Your task to perform on an android device: View the shopping cart on bestbuy.com. Add macbook pro 15 inch to the cart on bestbuy.com Image 0: 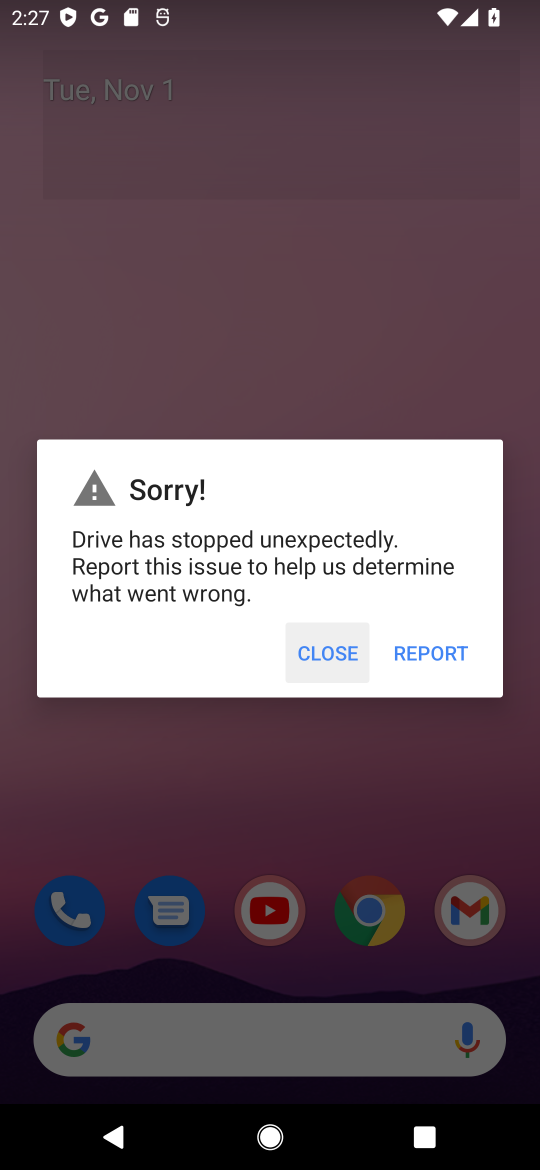
Step 0: press home button
Your task to perform on an android device: View the shopping cart on bestbuy.com. Add macbook pro 15 inch to the cart on bestbuy.com Image 1: 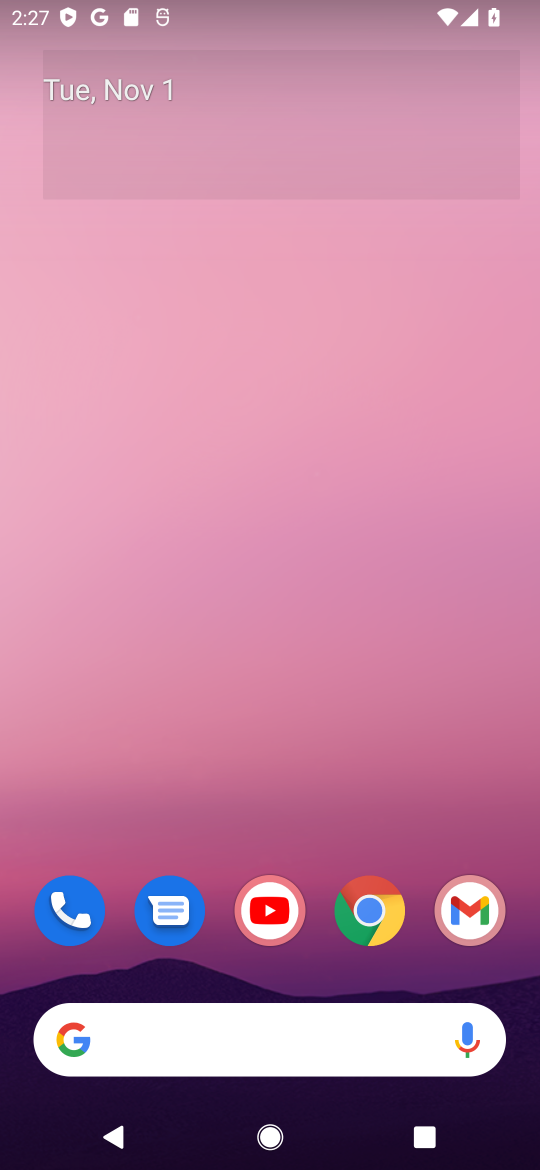
Step 1: click (305, 1043)
Your task to perform on an android device: View the shopping cart on bestbuy.com. Add macbook pro 15 inch to the cart on bestbuy.com Image 2: 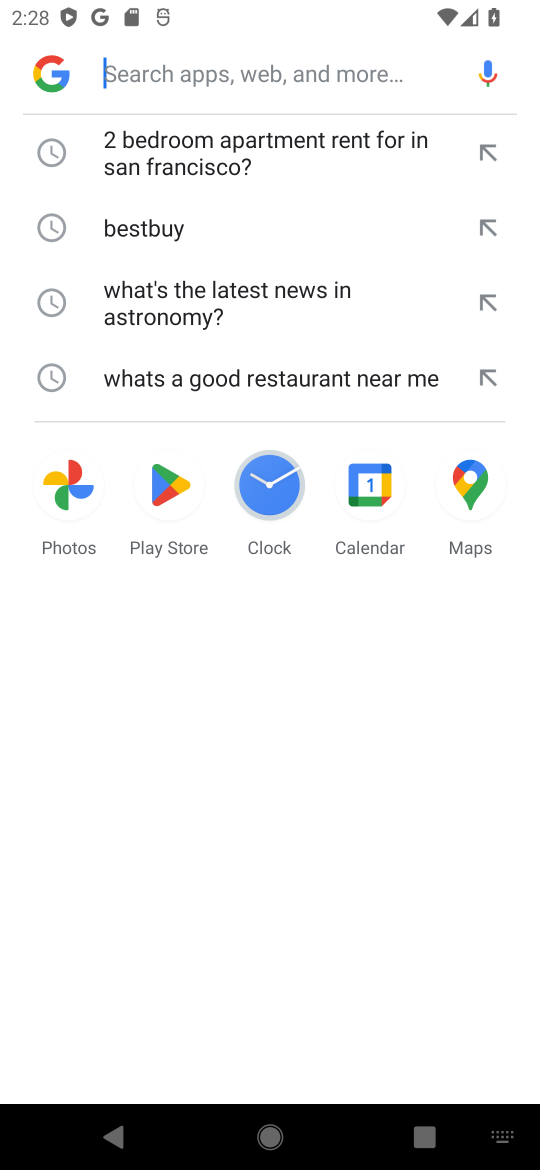
Step 2: type "bestbuy.com."
Your task to perform on an android device: View the shopping cart on bestbuy.com. Add macbook pro 15 inch to the cart on bestbuy.com Image 3: 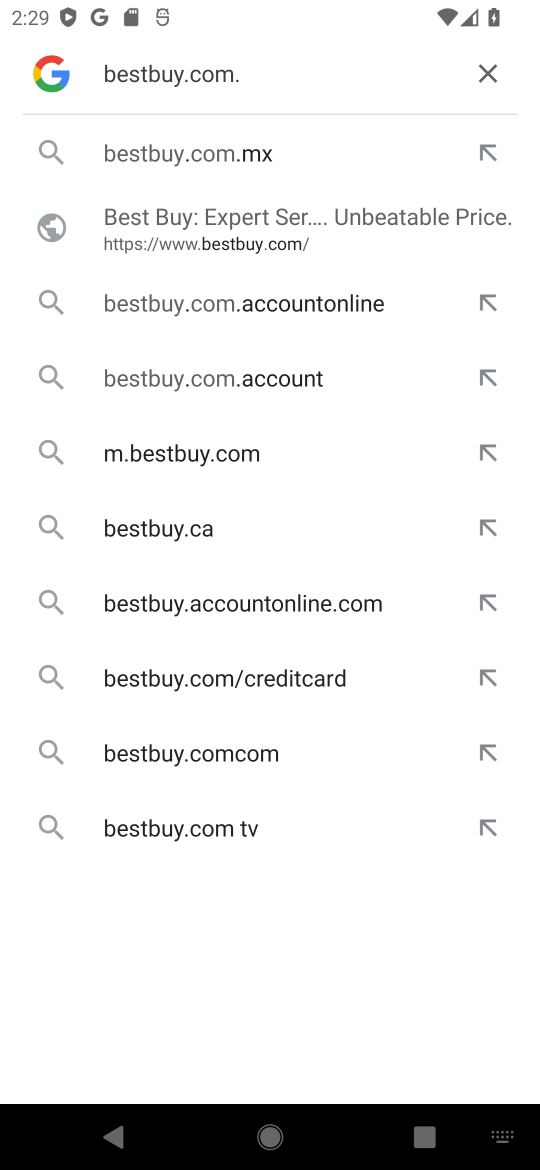
Step 3: click (220, 457)
Your task to perform on an android device: View the shopping cart on bestbuy.com. Add macbook pro 15 inch to the cart on bestbuy.com Image 4: 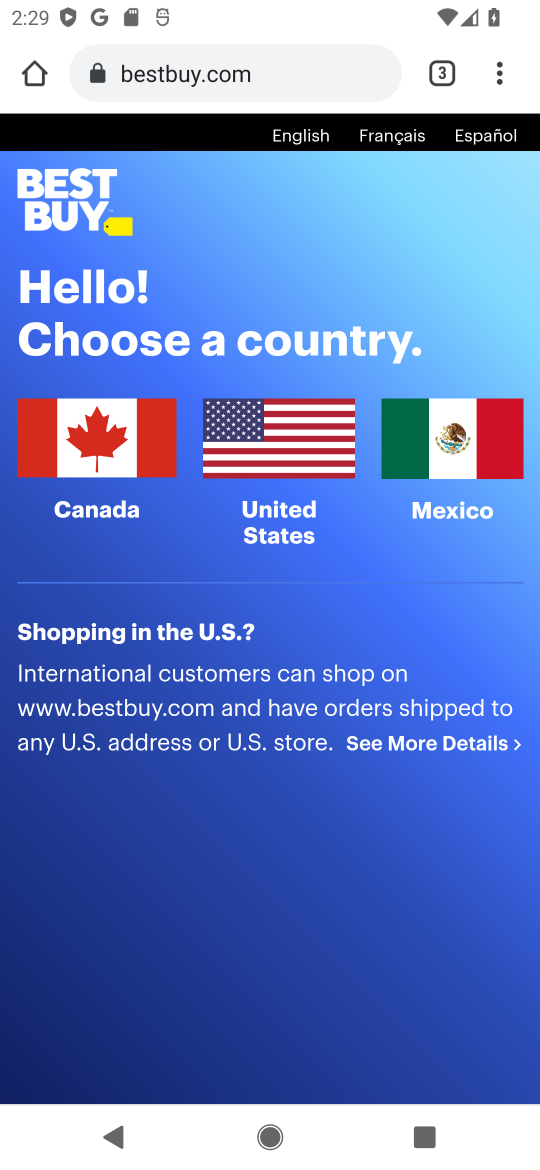
Step 4: click (251, 448)
Your task to perform on an android device: View the shopping cart on bestbuy.com. Add macbook pro 15 inch to the cart on bestbuy.com Image 5: 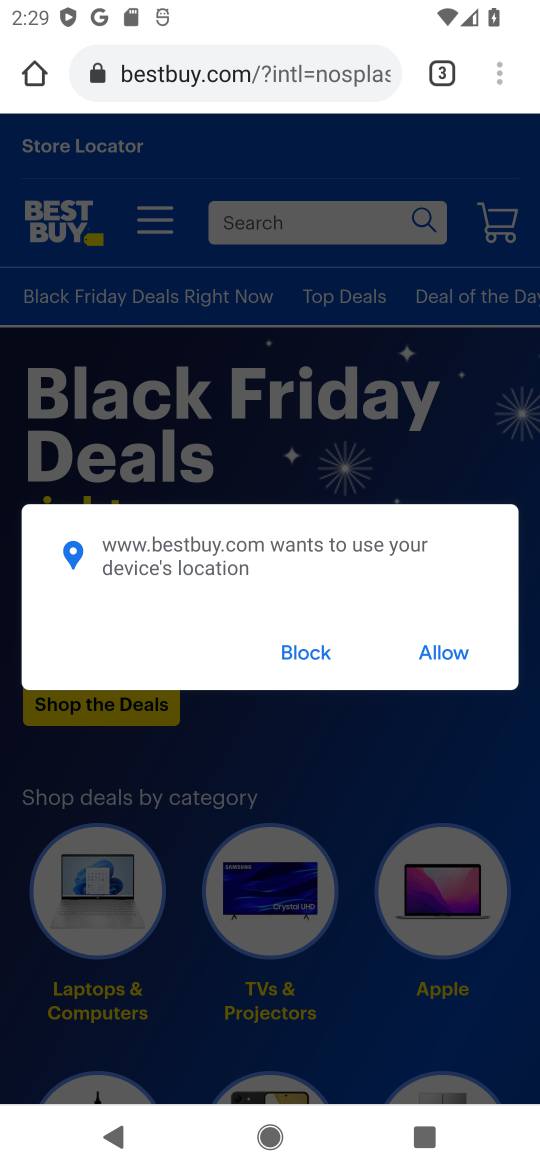
Step 5: click (339, 218)
Your task to perform on an android device: View the shopping cart on bestbuy.com. Add macbook pro 15 inch to the cart on bestbuy.com Image 6: 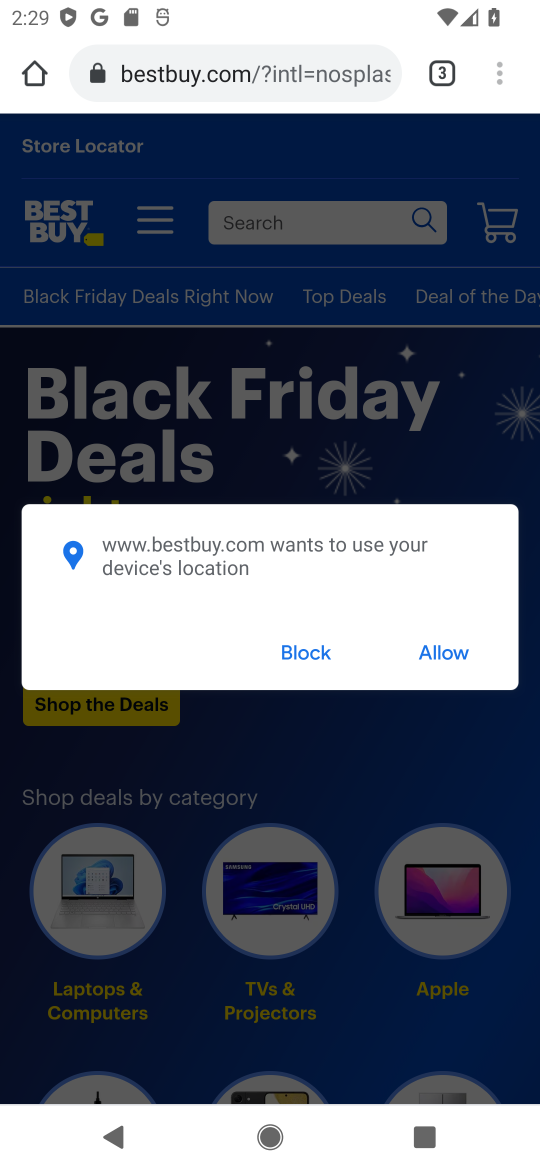
Step 6: click (295, 643)
Your task to perform on an android device: View the shopping cart on bestbuy.com. Add macbook pro 15 inch to the cart on bestbuy.com Image 7: 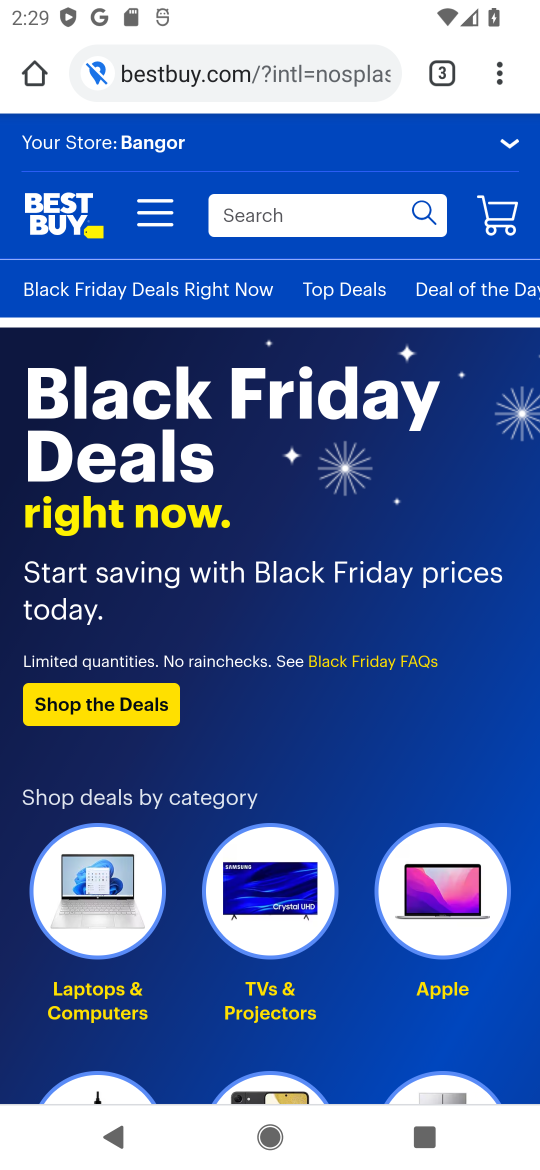
Step 7: click (340, 211)
Your task to perform on an android device: View the shopping cart on bestbuy.com. Add macbook pro 15 inch to the cart on bestbuy.com Image 8: 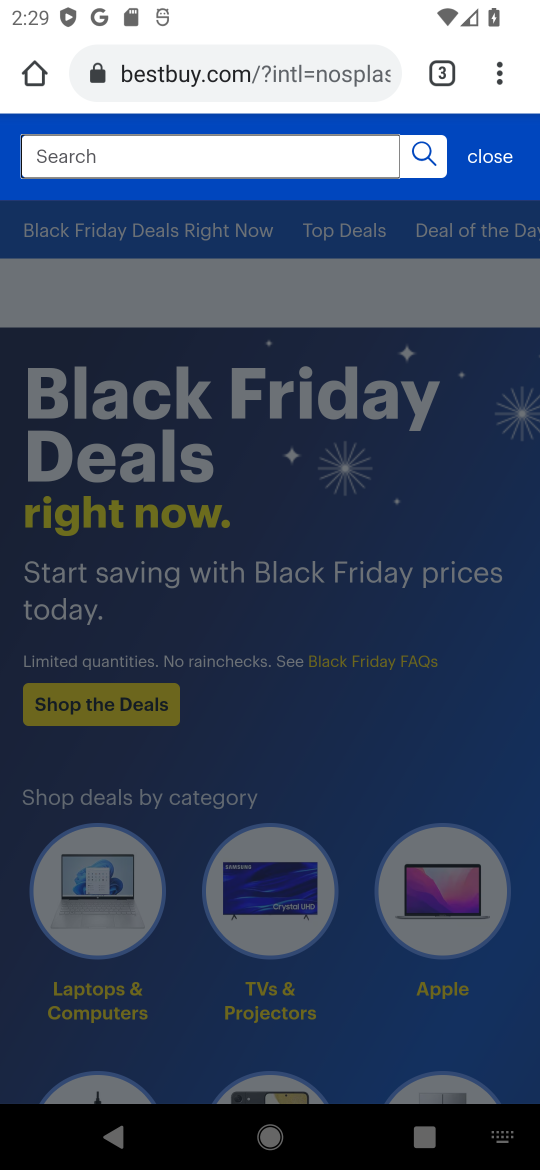
Step 8: type "macbook pro 15 inch"
Your task to perform on an android device: View the shopping cart on bestbuy.com. Add macbook pro 15 inch to the cart on bestbuy.com Image 9: 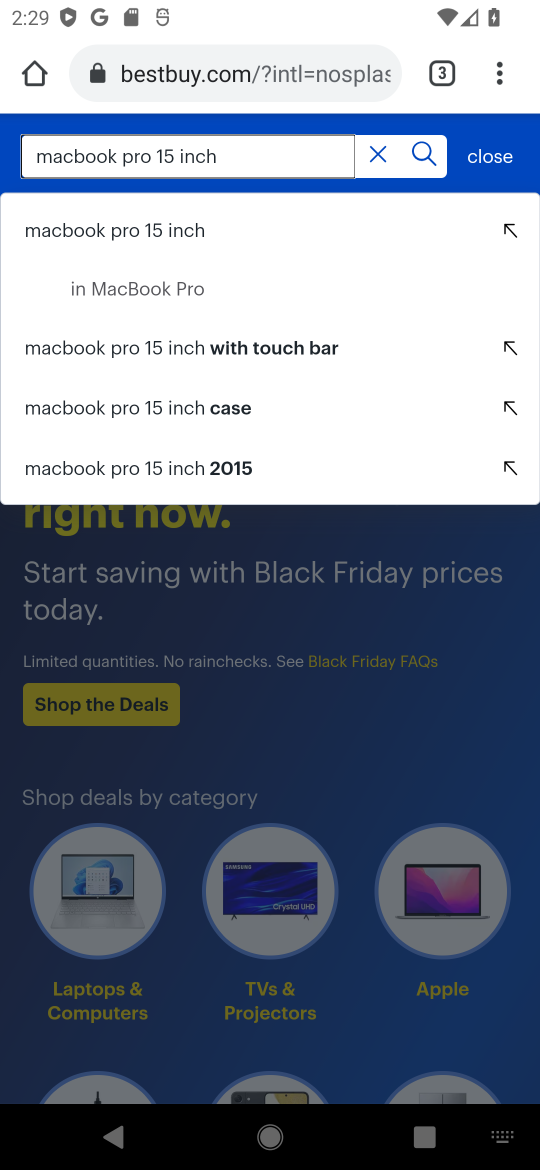
Step 9: click (159, 224)
Your task to perform on an android device: View the shopping cart on bestbuy.com. Add macbook pro 15 inch to the cart on bestbuy.com Image 10: 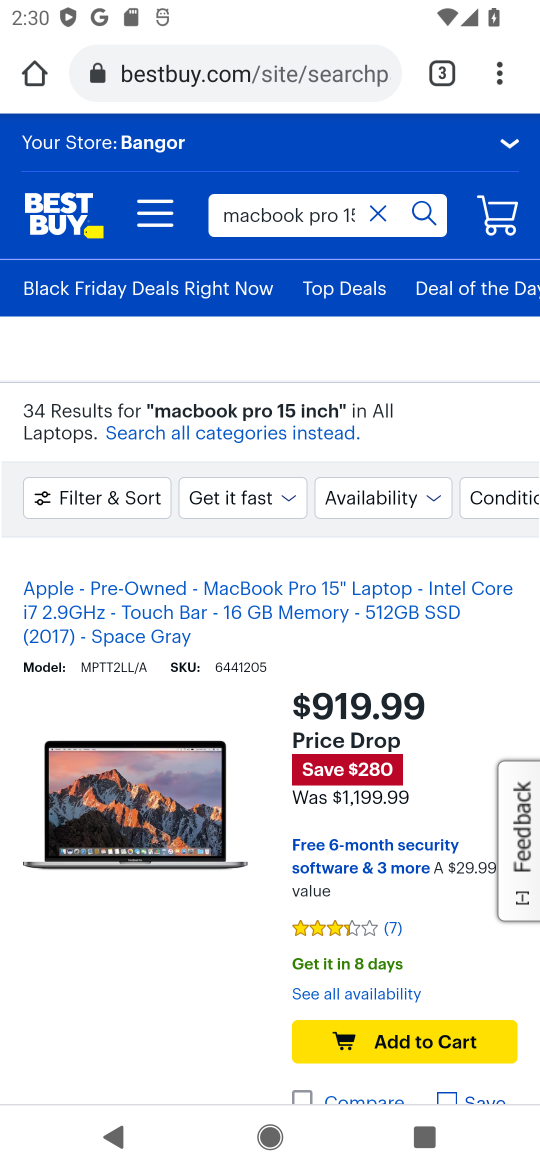
Step 10: click (388, 1042)
Your task to perform on an android device: View the shopping cart on bestbuy.com. Add macbook pro 15 inch to the cart on bestbuy.com Image 11: 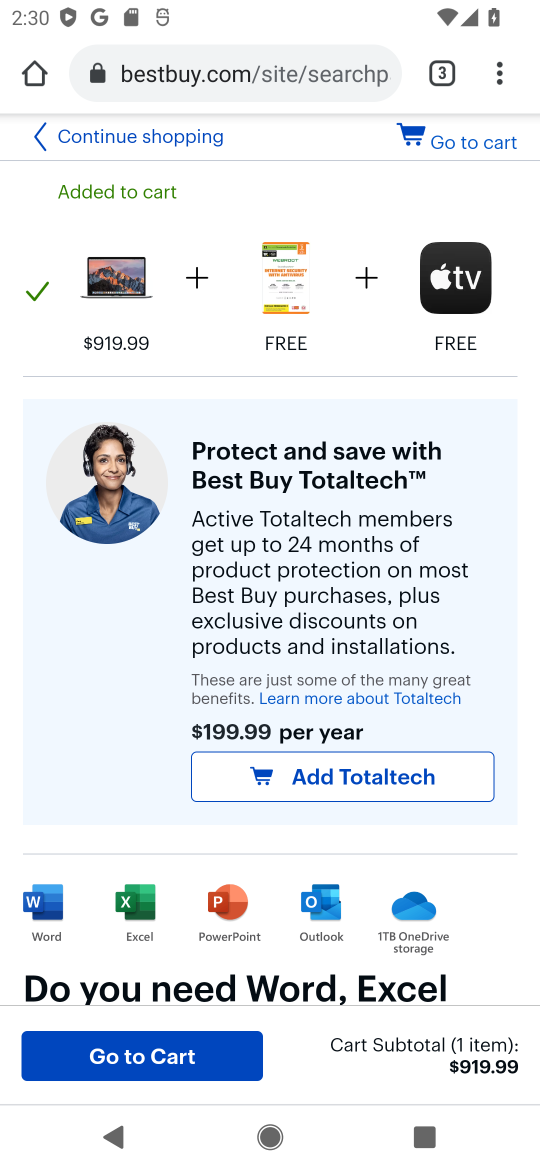
Step 11: task complete